Your task to perform on an android device: Open maps Image 0: 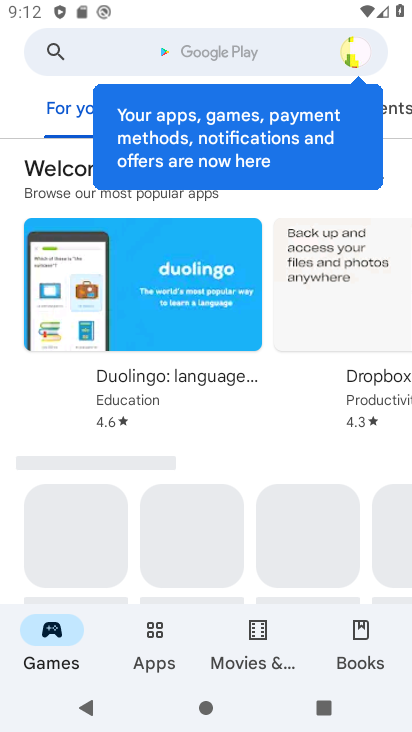
Step 0: press home button
Your task to perform on an android device: Open maps Image 1: 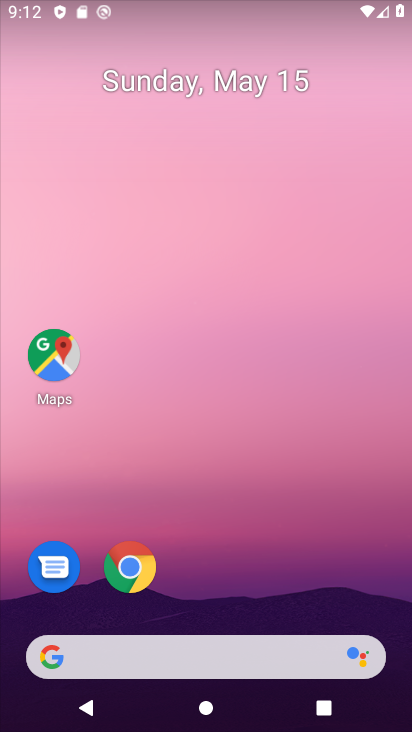
Step 1: click (65, 355)
Your task to perform on an android device: Open maps Image 2: 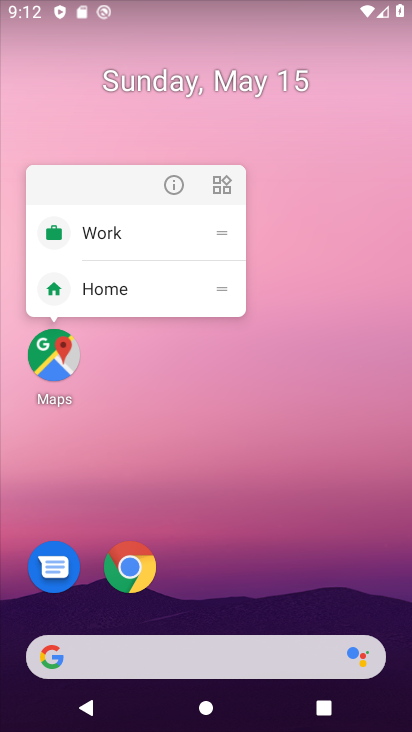
Step 2: click (60, 373)
Your task to perform on an android device: Open maps Image 3: 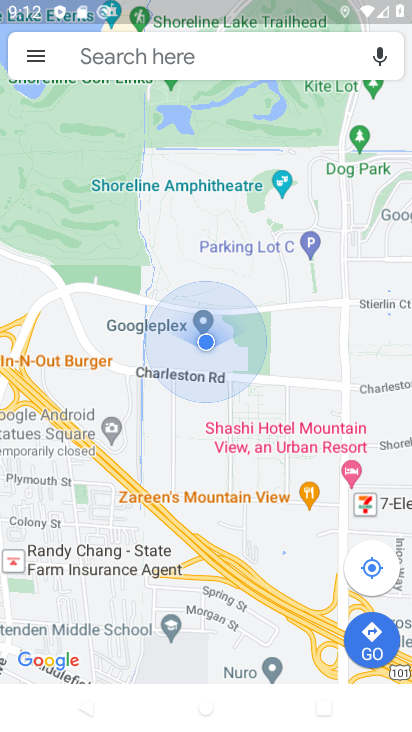
Step 3: task complete